Your task to perform on an android device: toggle show notifications on the lock screen Image 0: 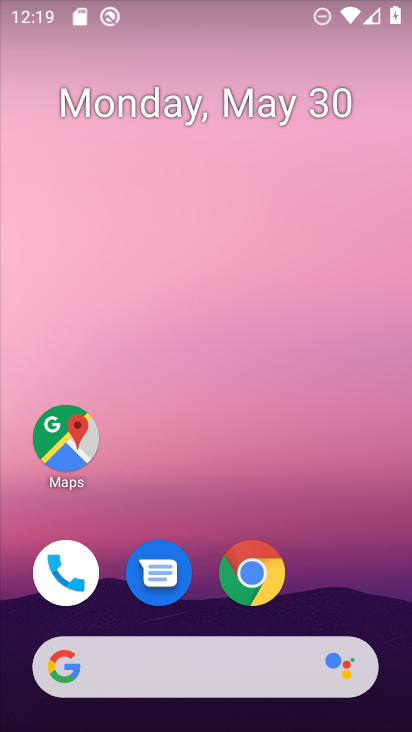
Step 0: press home button
Your task to perform on an android device: toggle show notifications on the lock screen Image 1: 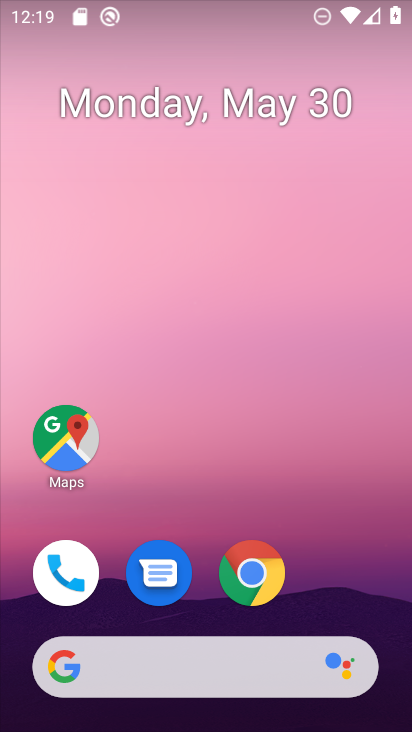
Step 1: drag from (306, 618) to (268, 6)
Your task to perform on an android device: toggle show notifications on the lock screen Image 2: 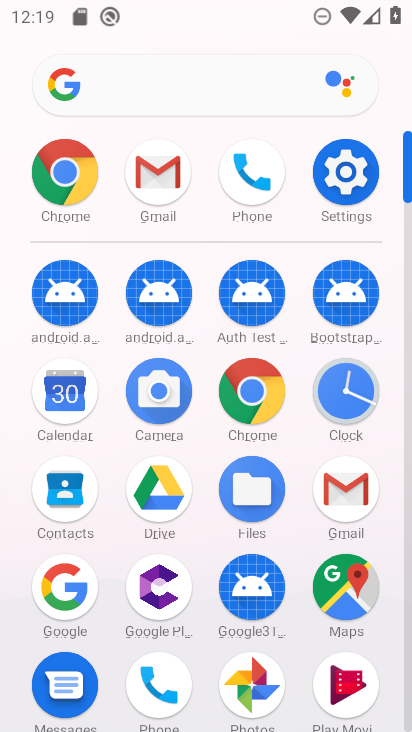
Step 2: click (349, 168)
Your task to perform on an android device: toggle show notifications on the lock screen Image 3: 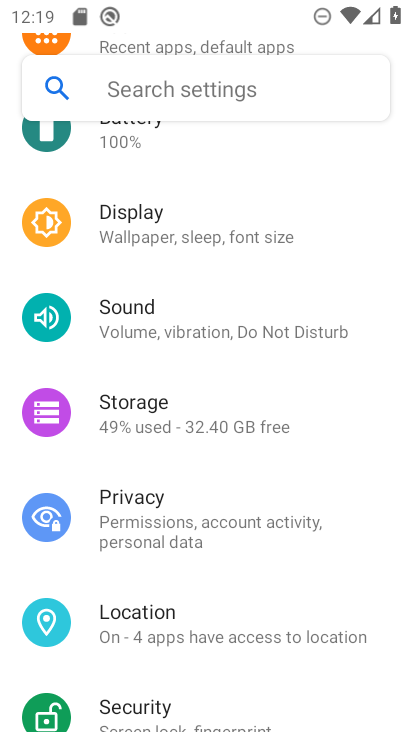
Step 3: drag from (285, 198) to (317, 633)
Your task to perform on an android device: toggle show notifications on the lock screen Image 4: 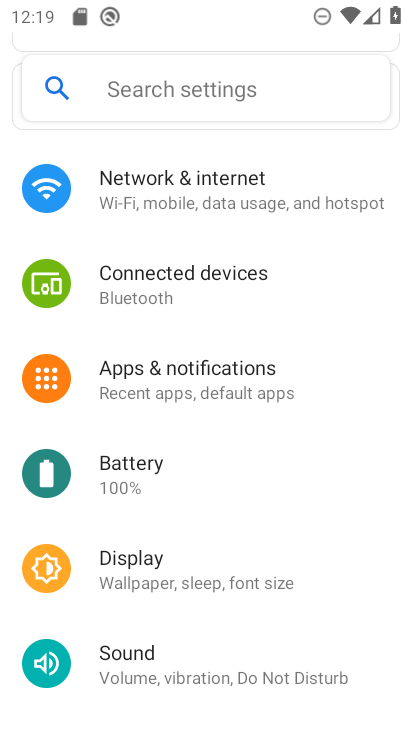
Step 4: click (171, 380)
Your task to perform on an android device: toggle show notifications on the lock screen Image 5: 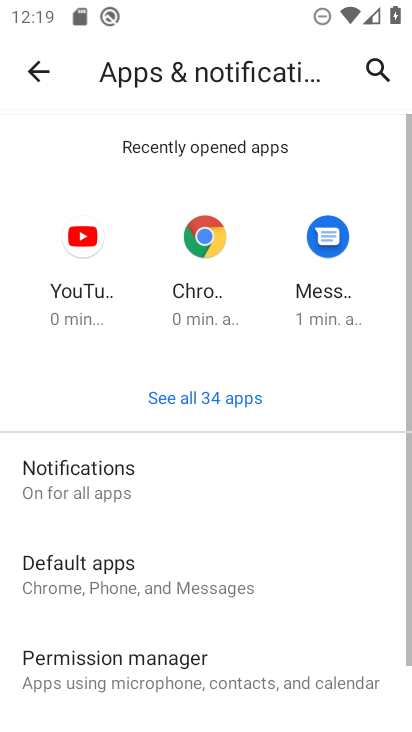
Step 5: click (82, 478)
Your task to perform on an android device: toggle show notifications on the lock screen Image 6: 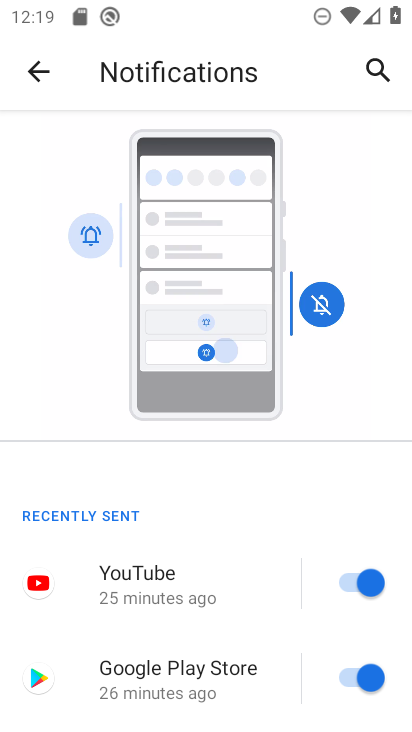
Step 6: drag from (290, 543) to (272, 70)
Your task to perform on an android device: toggle show notifications on the lock screen Image 7: 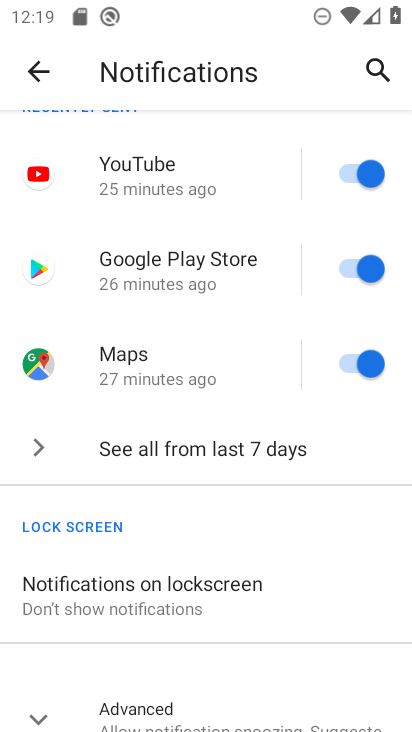
Step 7: click (123, 597)
Your task to perform on an android device: toggle show notifications on the lock screen Image 8: 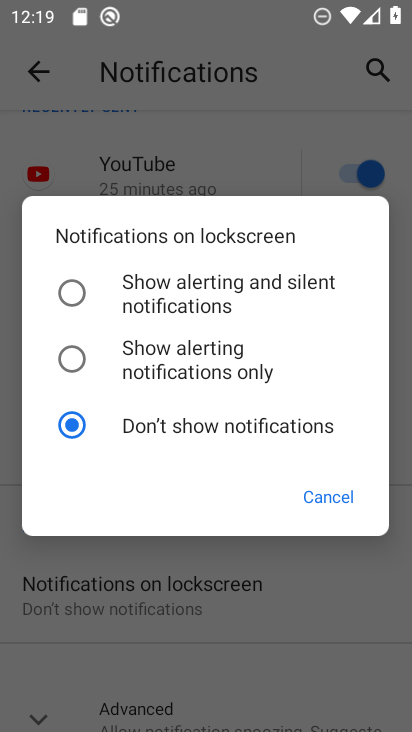
Step 8: click (71, 300)
Your task to perform on an android device: toggle show notifications on the lock screen Image 9: 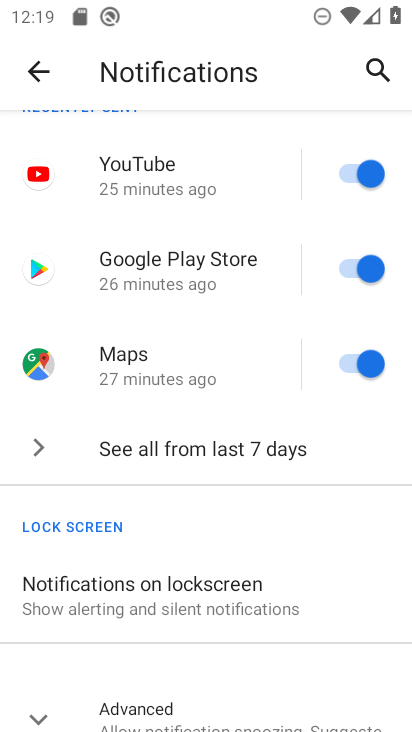
Step 9: task complete